Your task to perform on an android device: Go to Wikipedia Image 0: 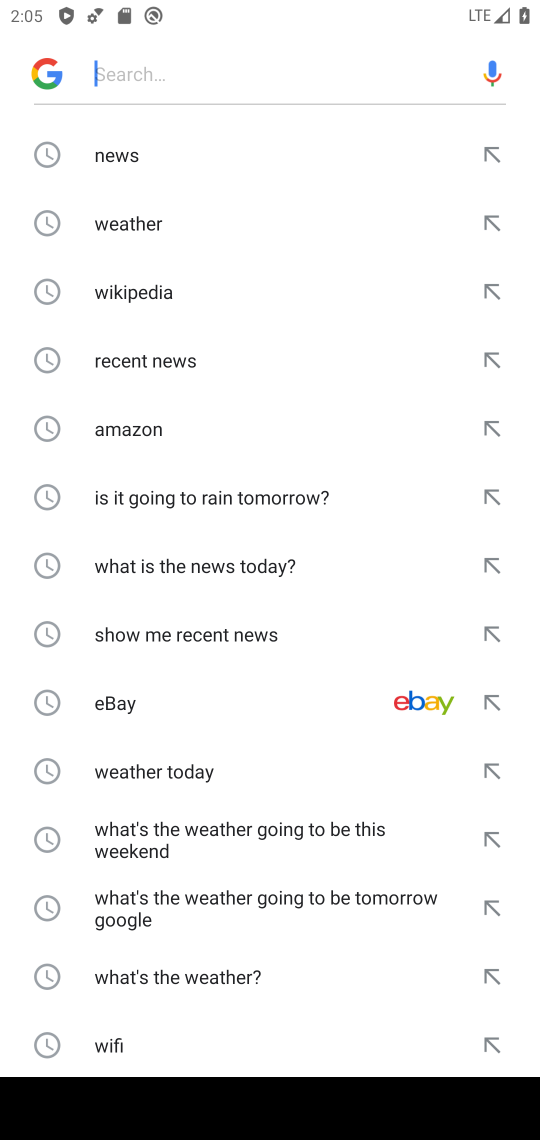
Step 0: press back button
Your task to perform on an android device: Go to Wikipedia Image 1: 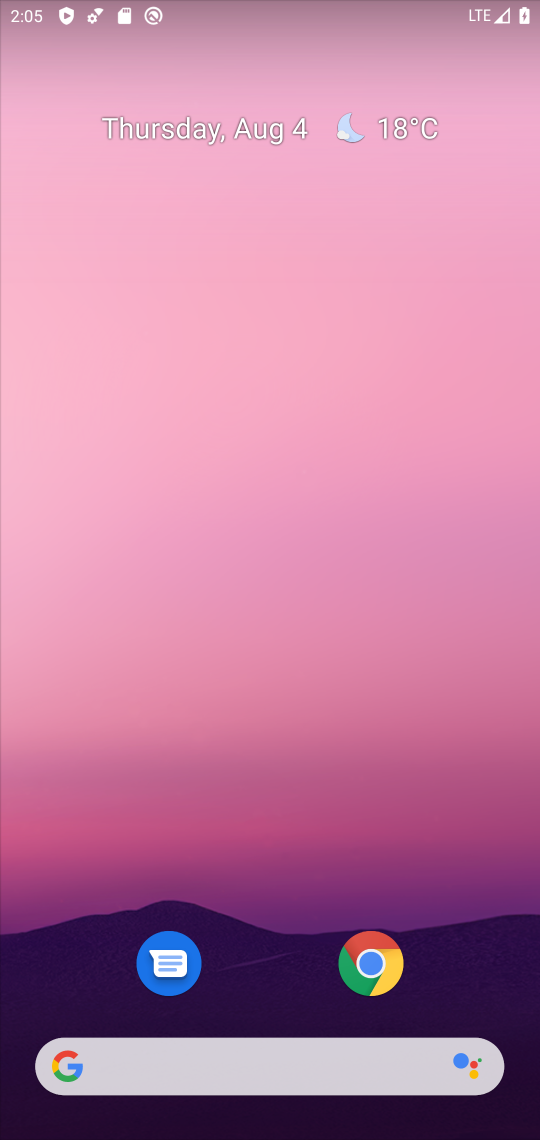
Step 1: click (383, 955)
Your task to perform on an android device: Go to Wikipedia Image 2: 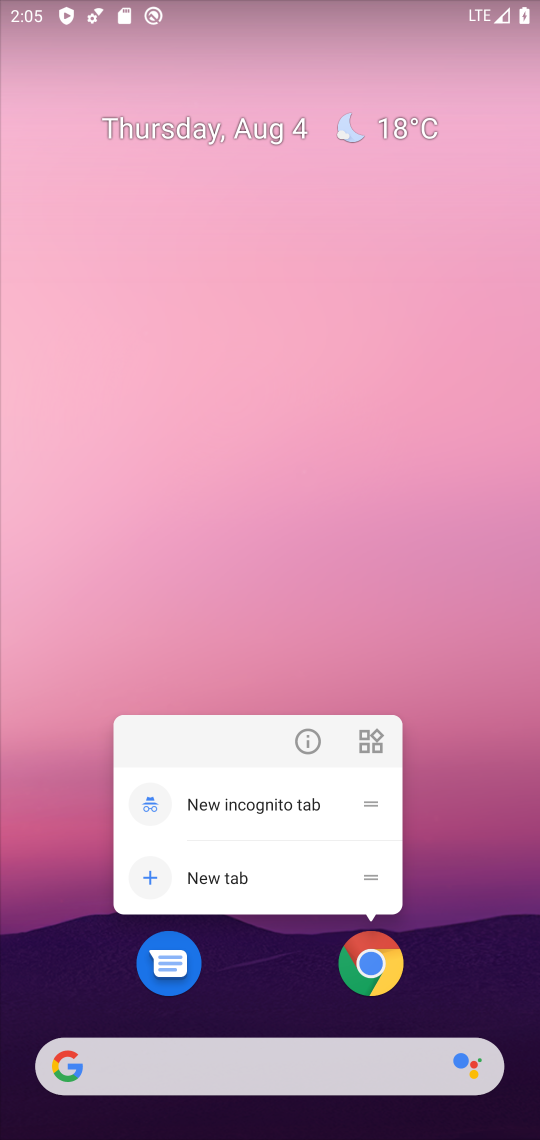
Step 2: click (365, 955)
Your task to perform on an android device: Go to Wikipedia Image 3: 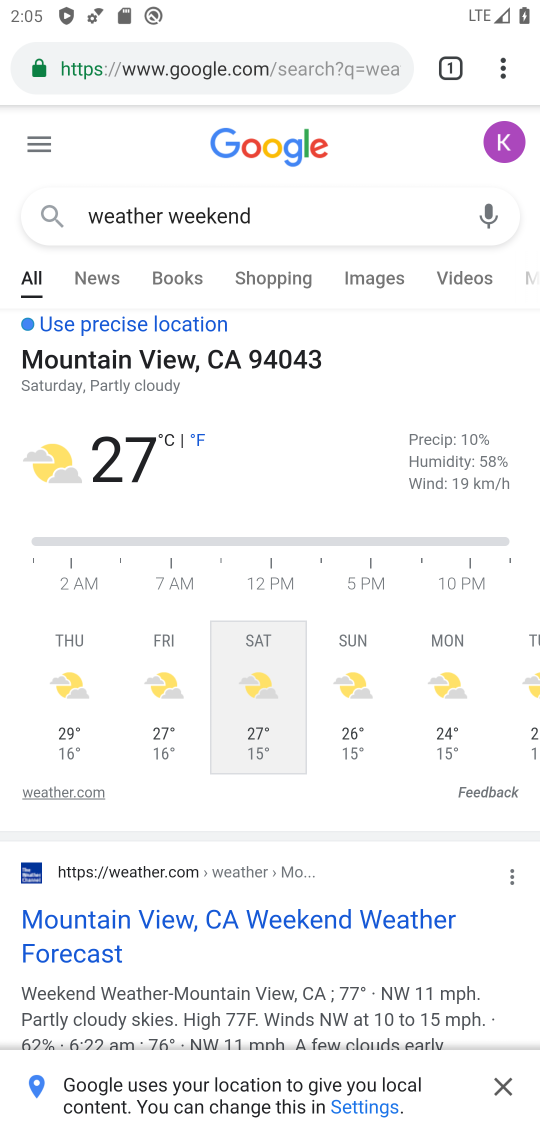
Step 3: click (200, 84)
Your task to perform on an android device: Go to Wikipedia Image 4: 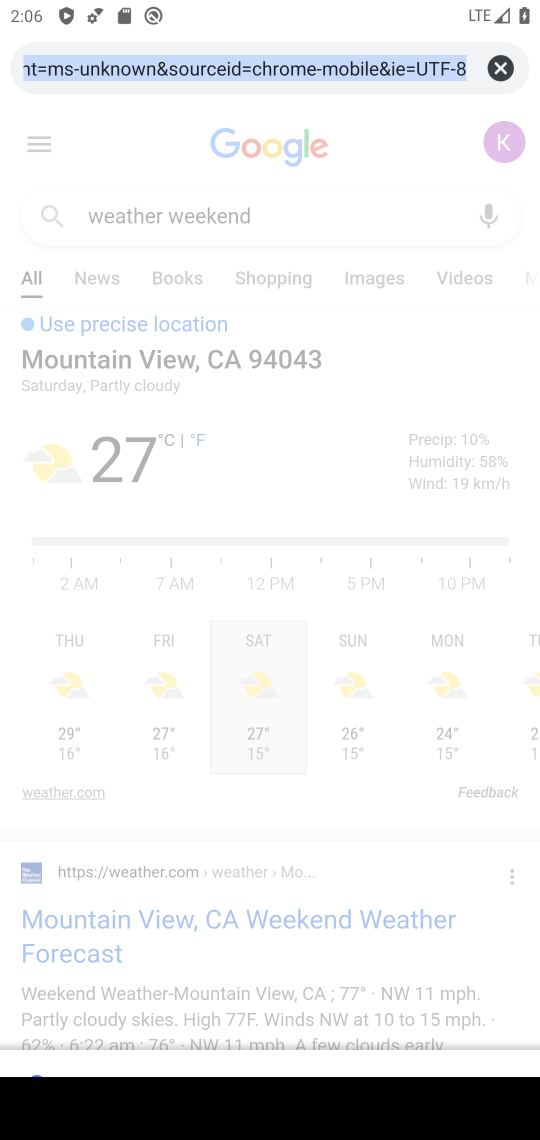
Step 4: type "wikipedia"
Your task to perform on an android device: Go to Wikipedia Image 5: 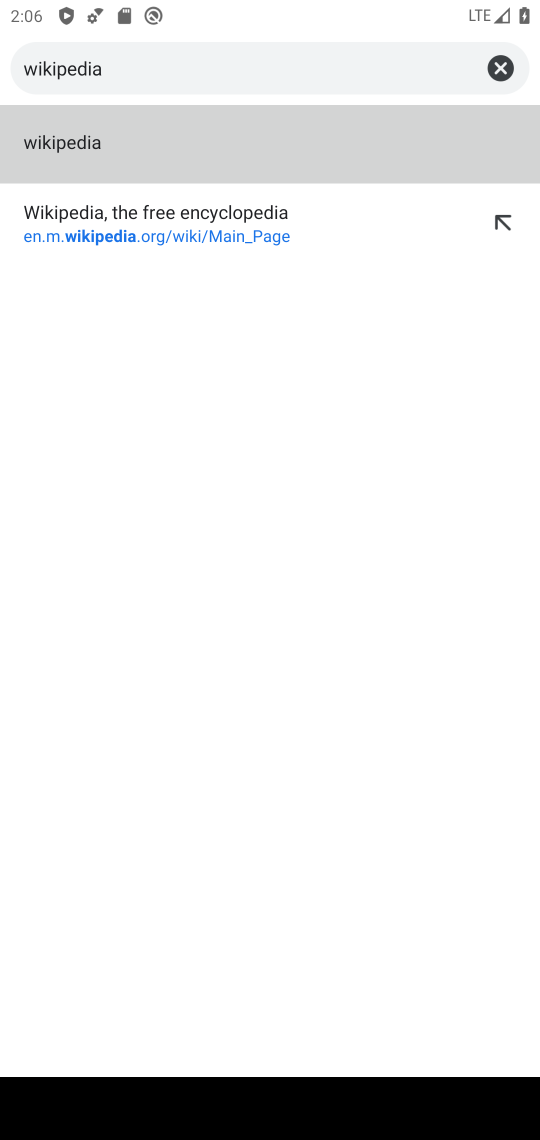
Step 5: click (205, 233)
Your task to perform on an android device: Go to Wikipedia Image 6: 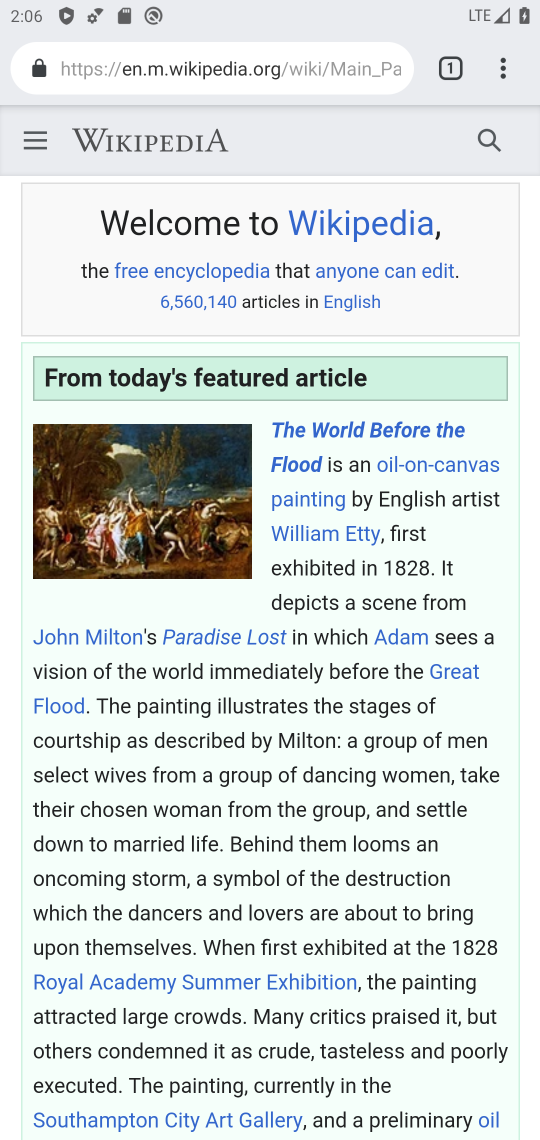
Step 6: task complete